Your task to perform on an android device: See recent photos Image 0: 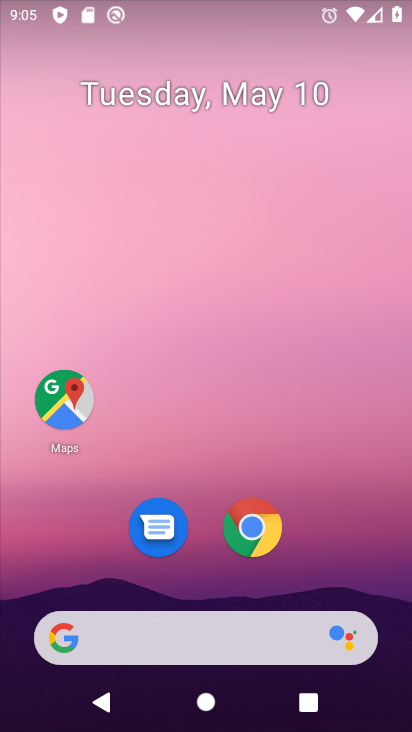
Step 0: drag from (220, 593) to (141, 14)
Your task to perform on an android device: See recent photos Image 1: 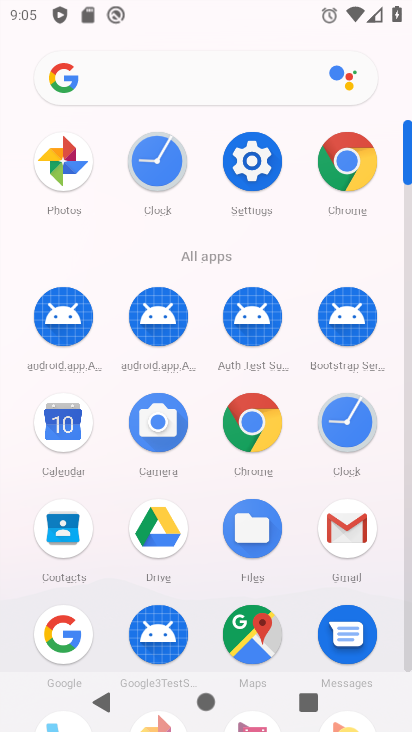
Step 1: click (53, 167)
Your task to perform on an android device: See recent photos Image 2: 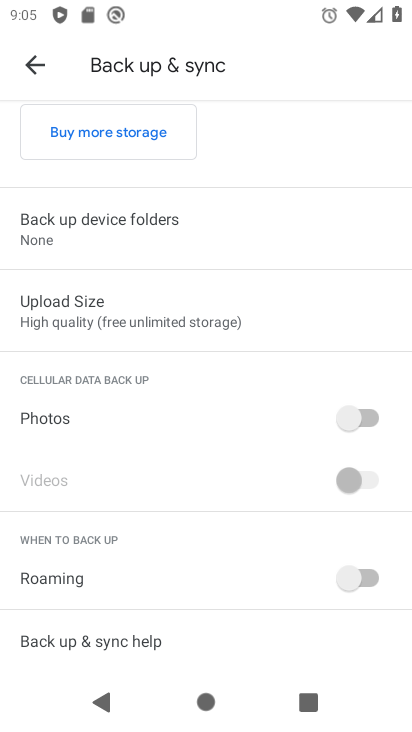
Step 2: click (20, 60)
Your task to perform on an android device: See recent photos Image 3: 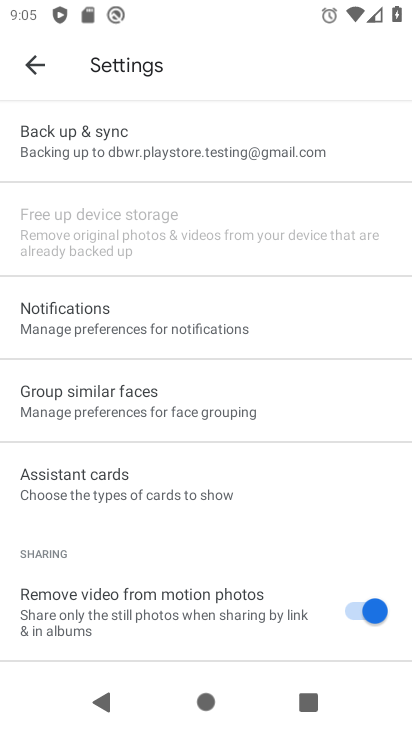
Step 3: click (43, 63)
Your task to perform on an android device: See recent photos Image 4: 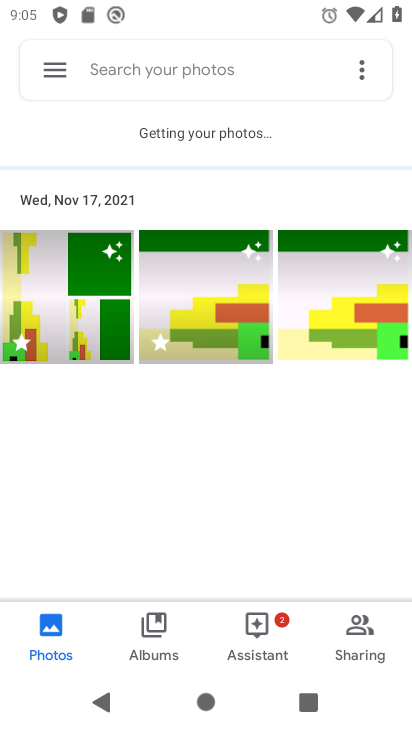
Step 4: task complete